Your task to perform on an android device: open chrome and create a bookmark for the current page Image 0: 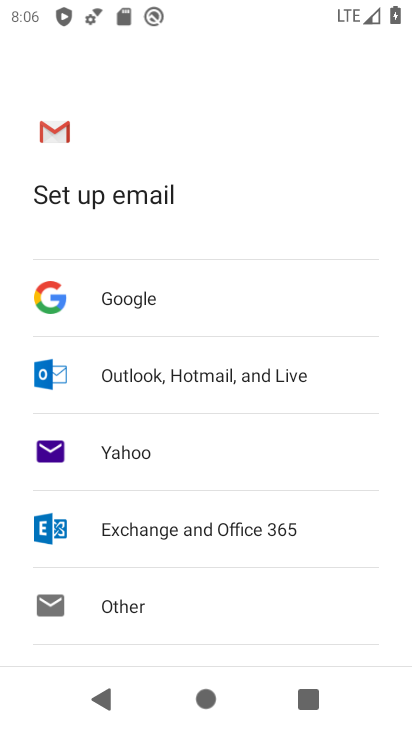
Step 0: press home button
Your task to perform on an android device: open chrome and create a bookmark for the current page Image 1: 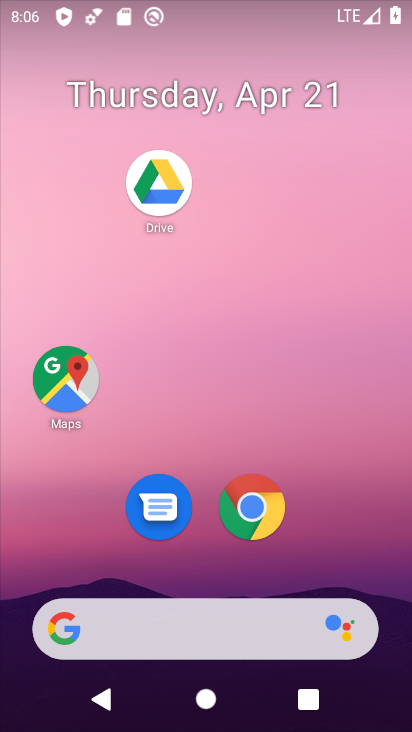
Step 1: drag from (342, 552) to (346, 171)
Your task to perform on an android device: open chrome and create a bookmark for the current page Image 2: 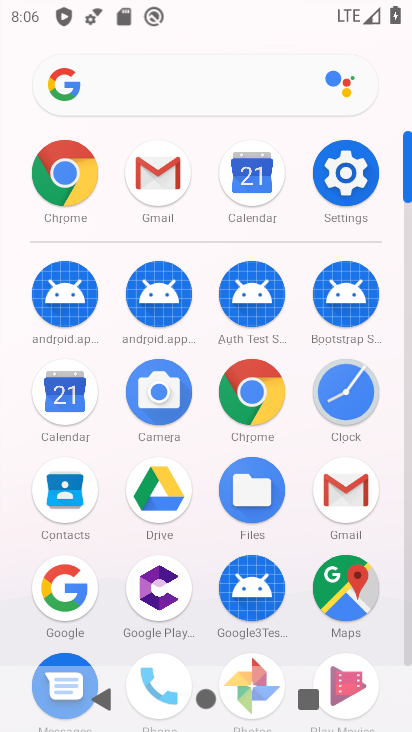
Step 2: click (266, 400)
Your task to perform on an android device: open chrome and create a bookmark for the current page Image 3: 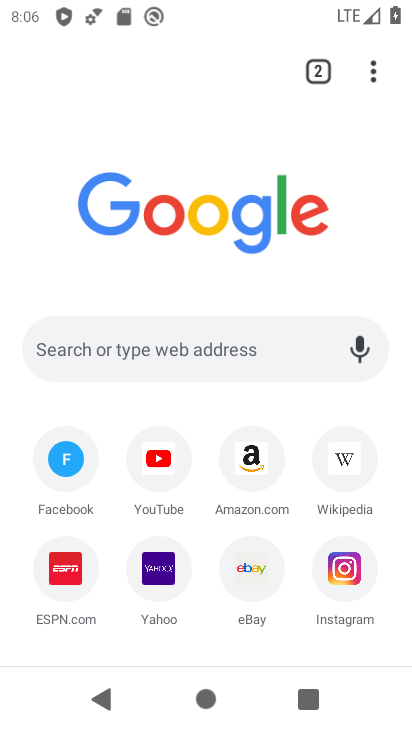
Step 3: click (373, 69)
Your task to perform on an android device: open chrome and create a bookmark for the current page Image 4: 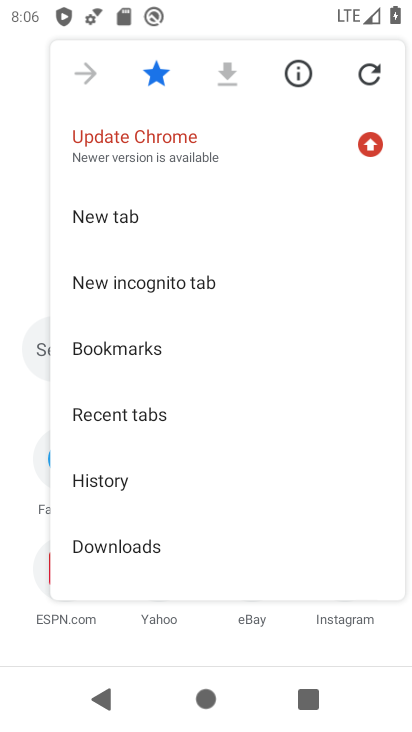
Step 4: task complete